Your task to perform on an android device: toggle translation in the chrome app Image 0: 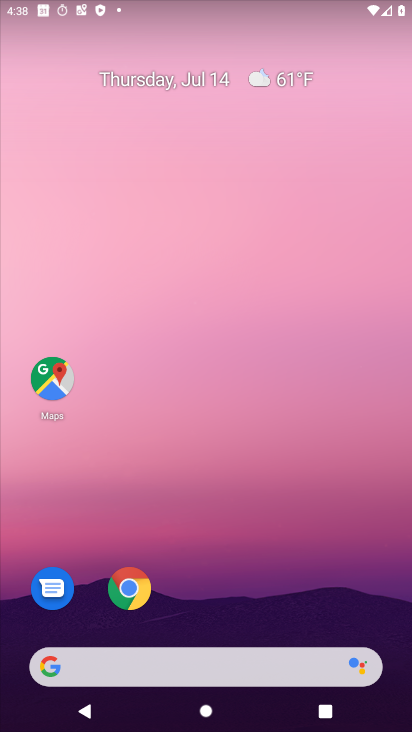
Step 0: click (130, 586)
Your task to perform on an android device: toggle translation in the chrome app Image 1: 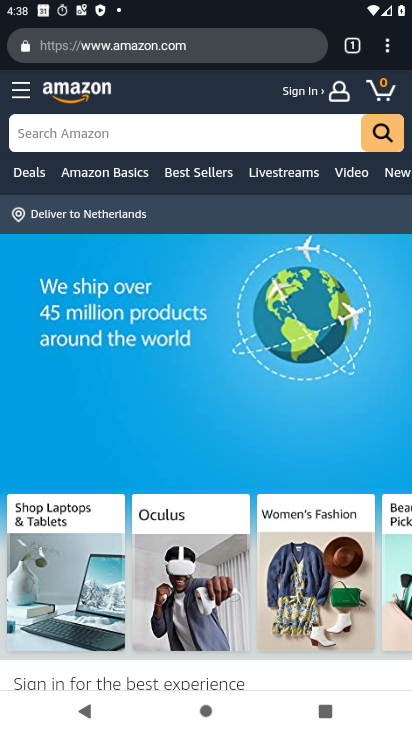
Step 1: click (389, 48)
Your task to perform on an android device: toggle translation in the chrome app Image 2: 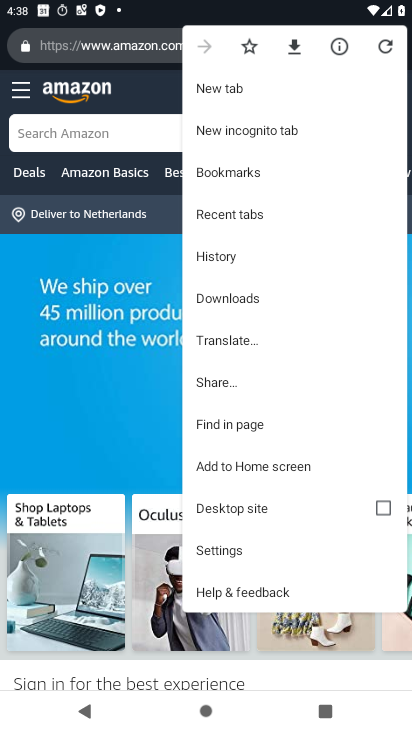
Step 2: click (223, 552)
Your task to perform on an android device: toggle translation in the chrome app Image 3: 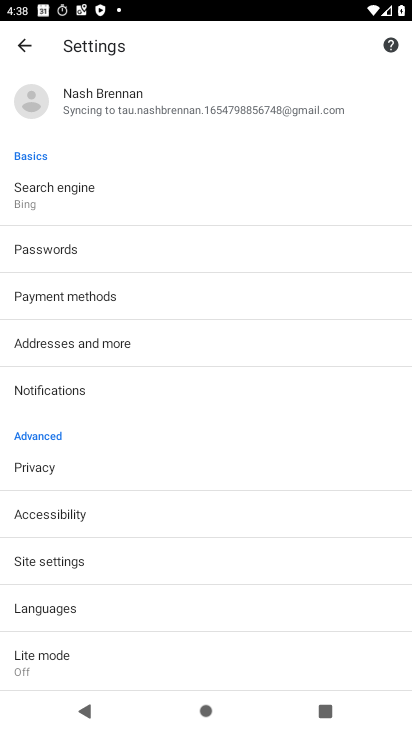
Step 3: click (66, 607)
Your task to perform on an android device: toggle translation in the chrome app Image 4: 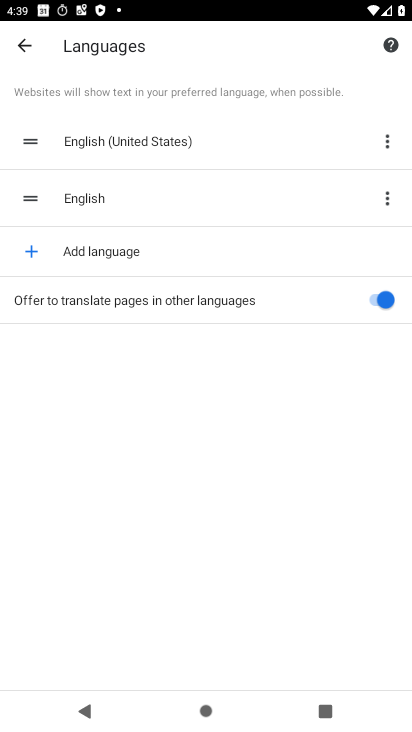
Step 4: click (378, 297)
Your task to perform on an android device: toggle translation in the chrome app Image 5: 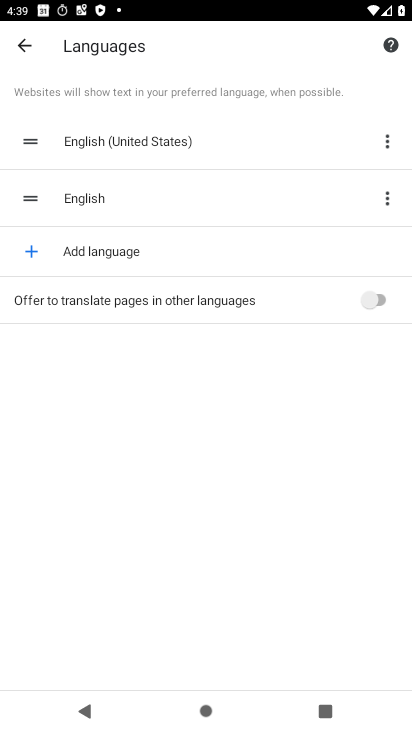
Step 5: task complete